Your task to perform on an android device: Open ESPN.com Image 0: 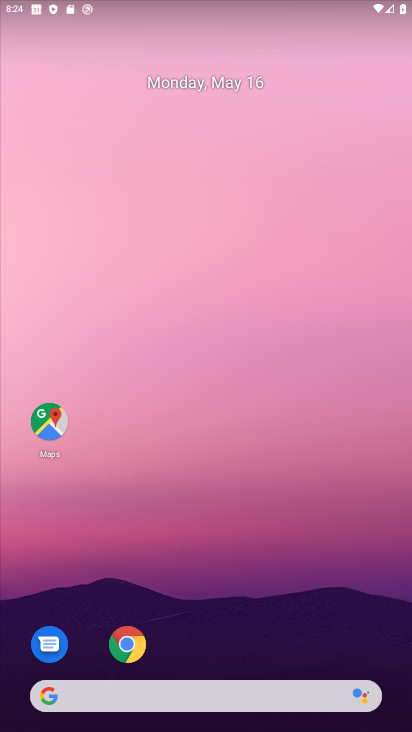
Step 0: click (271, 693)
Your task to perform on an android device: Open ESPN.com Image 1: 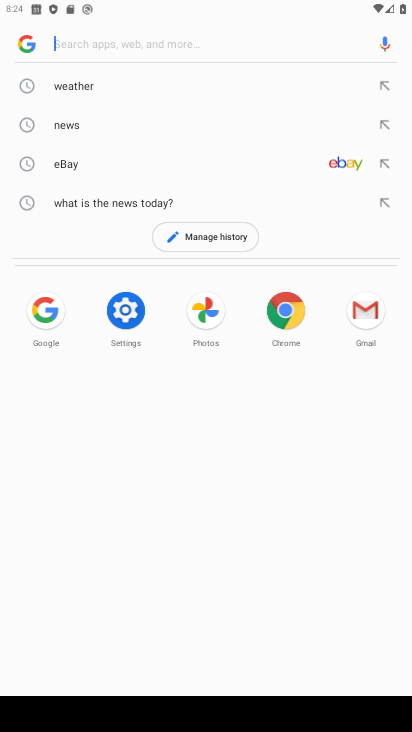
Step 1: type "espn.com"
Your task to perform on an android device: Open ESPN.com Image 2: 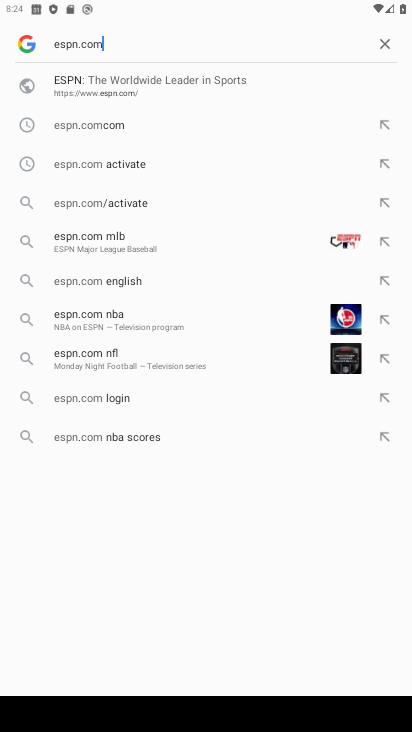
Step 2: click (211, 89)
Your task to perform on an android device: Open ESPN.com Image 3: 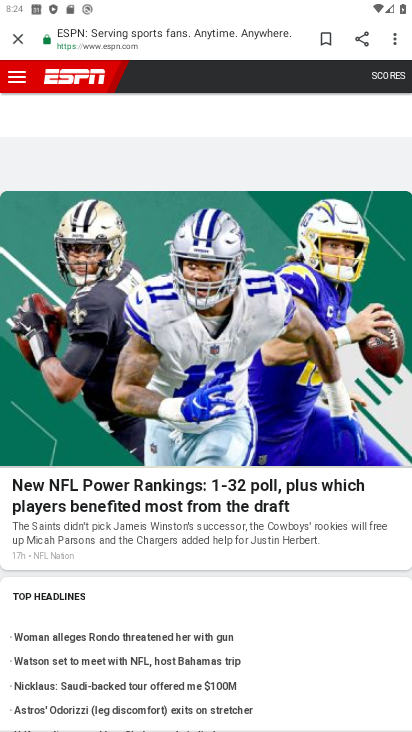
Step 3: task complete